Your task to perform on an android device: allow notifications from all sites in the chrome app Image 0: 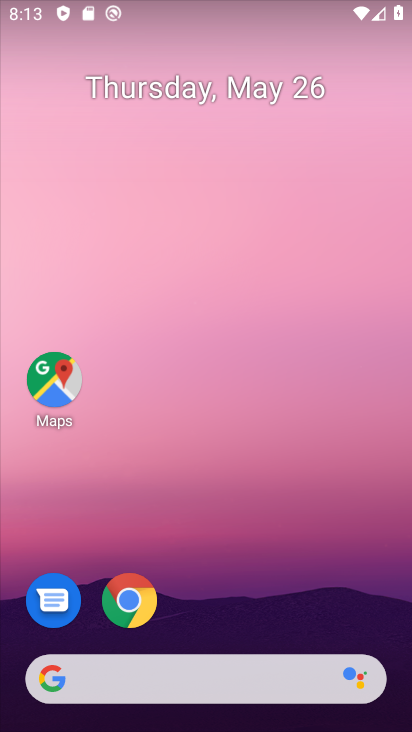
Step 0: drag from (266, 636) to (307, 13)
Your task to perform on an android device: allow notifications from all sites in the chrome app Image 1: 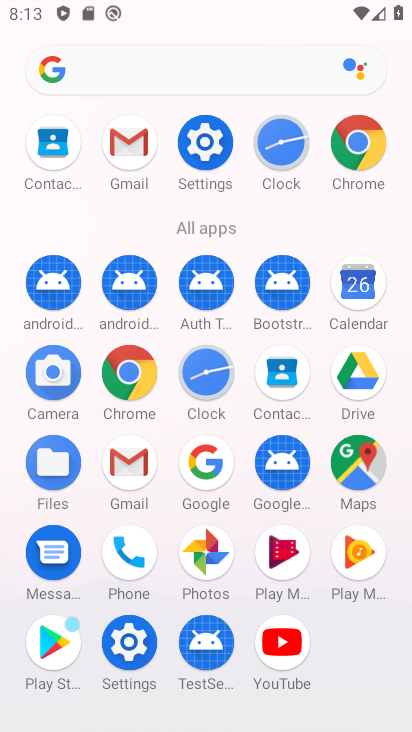
Step 1: click (196, 155)
Your task to perform on an android device: allow notifications from all sites in the chrome app Image 2: 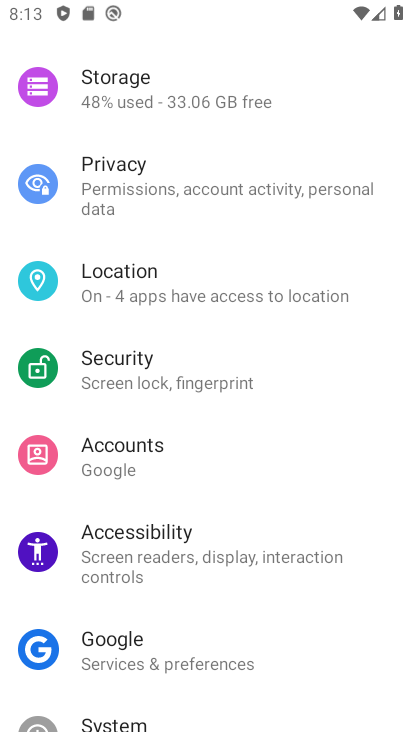
Step 2: drag from (164, 138) to (212, 661)
Your task to perform on an android device: allow notifications from all sites in the chrome app Image 3: 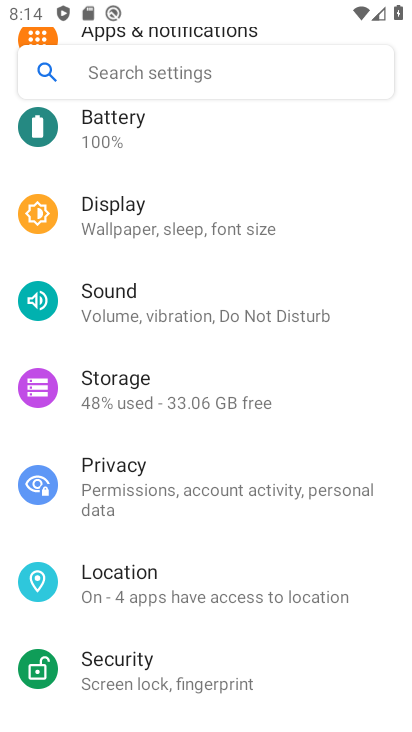
Step 3: drag from (170, 150) to (176, 513)
Your task to perform on an android device: allow notifications from all sites in the chrome app Image 4: 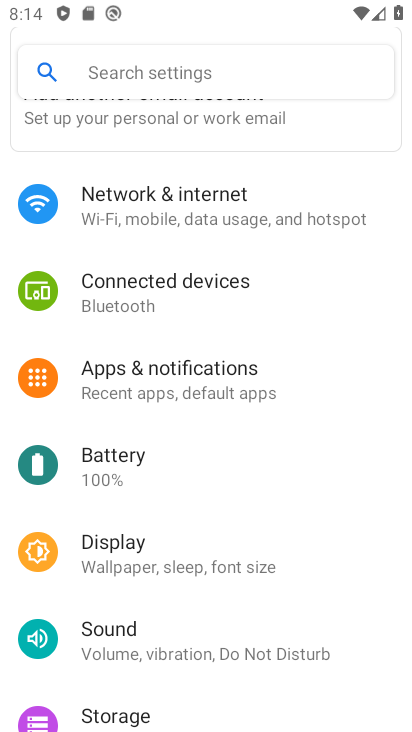
Step 4: click (177, 386)
Your task to perform on an android device: allow notifications from all sites in the chrome app Image 5: 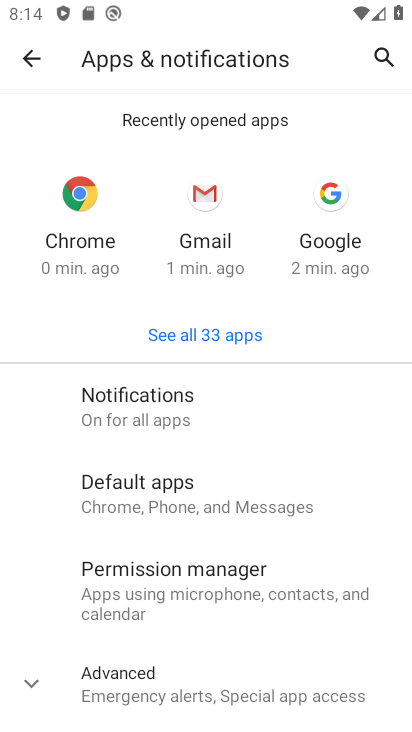
Step 5: click (205, 197)
Your task to perform on an android device: allow notifications from all sites in the chrome app Image 6: 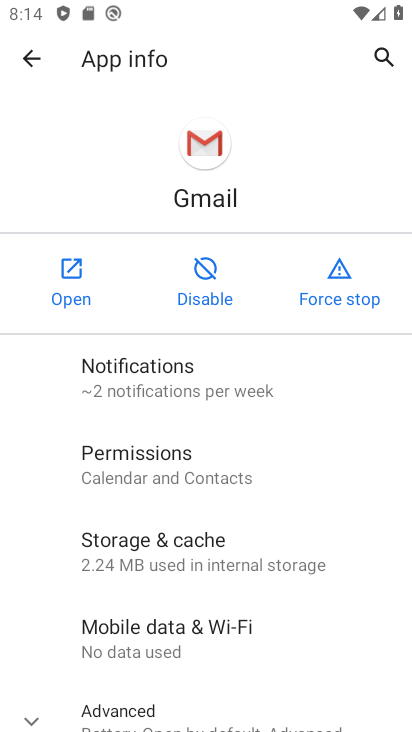
Step 6: click (236, 388)
Your task to perform on an android device: allow notifications from all sites in the chrome app Image 7: 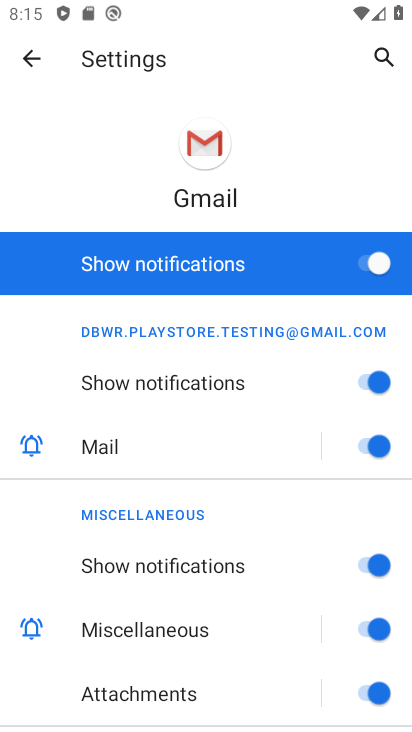
Step 7: task complete